Your task to perform on an android device: change the clock display to analog Image 0: 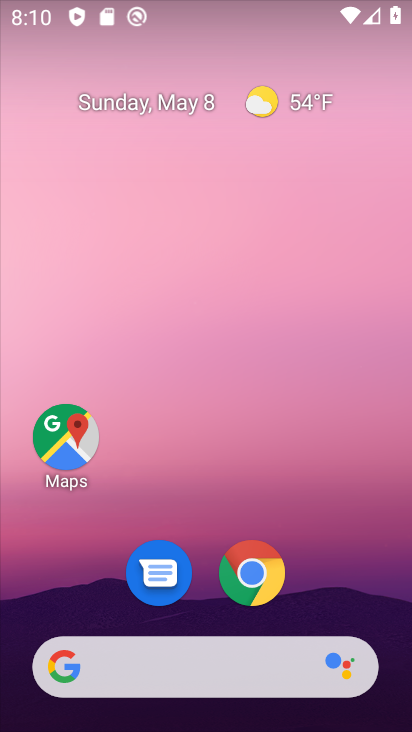
Step 0: drag from (198, 723) to (184, 193)
Your task to perform on an android device: change the clock display to analog Image 1: 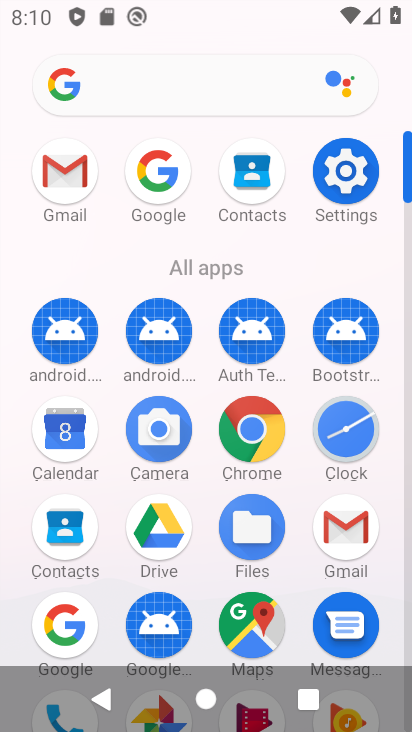
Step 1: click (353, 433)
Your task to perform on an android device: change the clock display to analog Image 2: 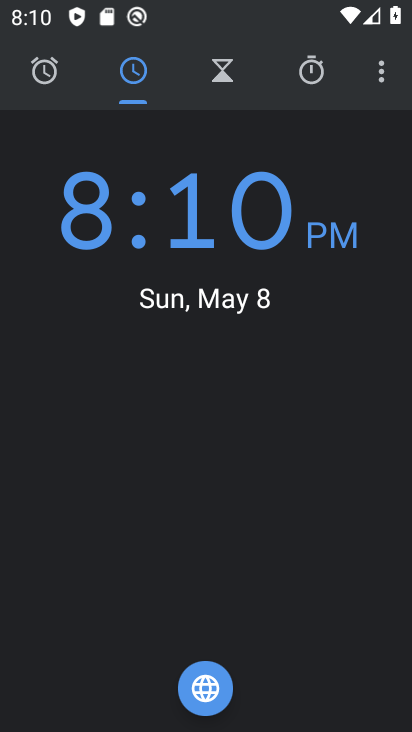
Step 2: click (384, 76)
Your task to perform on an android device: change the clock display to analog Image 3: 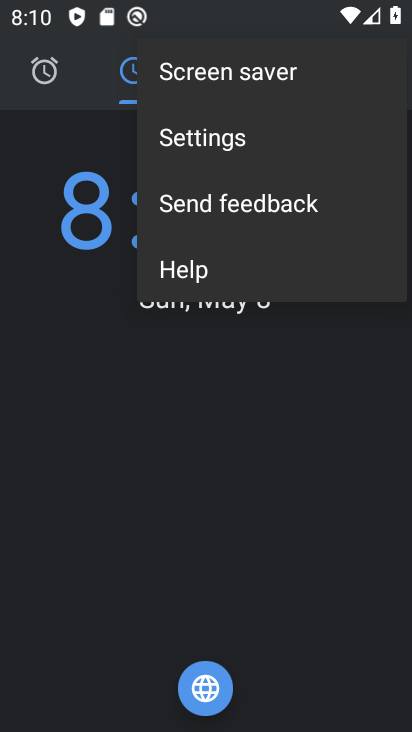
Step 3: click (212, 136)
Your task to perform on an android device: change the clock display to analog Image 4: 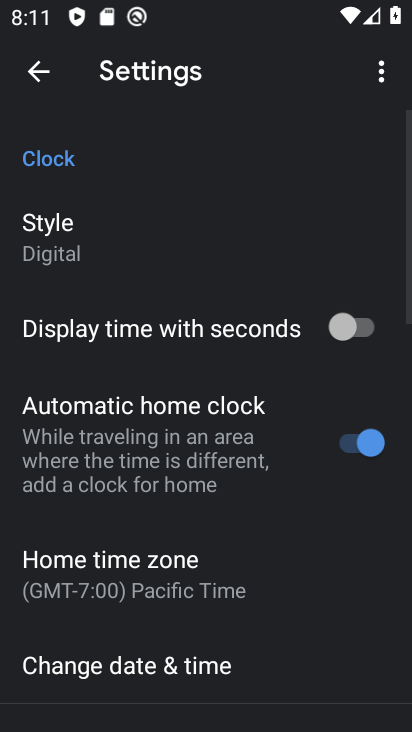
Step 4: click (61, 248)
Your task to perform on an android device: change the clock display to analog Image 5: 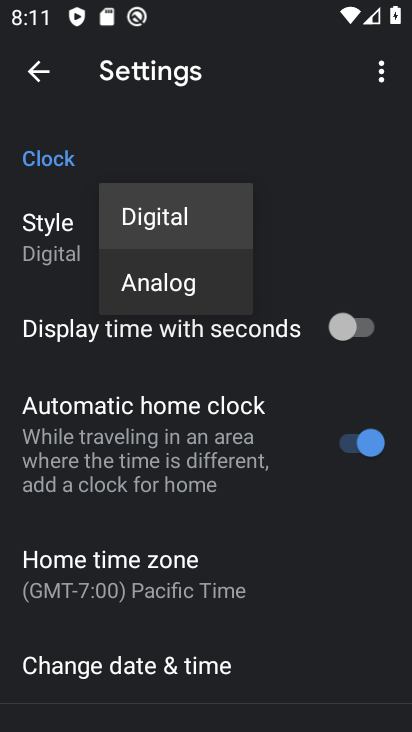
Step 5: click (150, 280)
Your task to perform on an android device: change the clock display to analog Image 6: 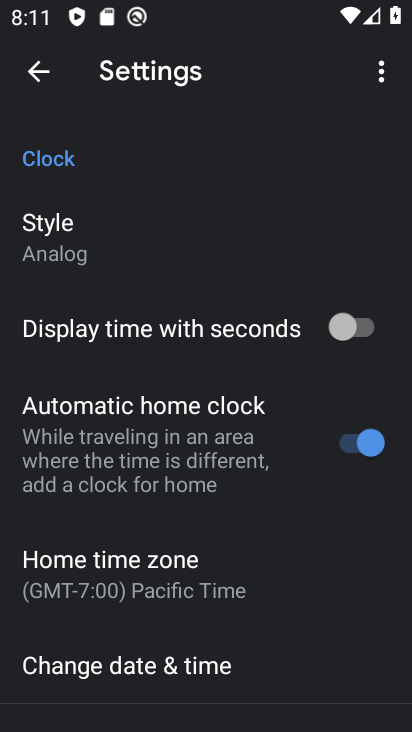
Step 6: task complete